Your task to perform on an android device: turn off location Image 0: 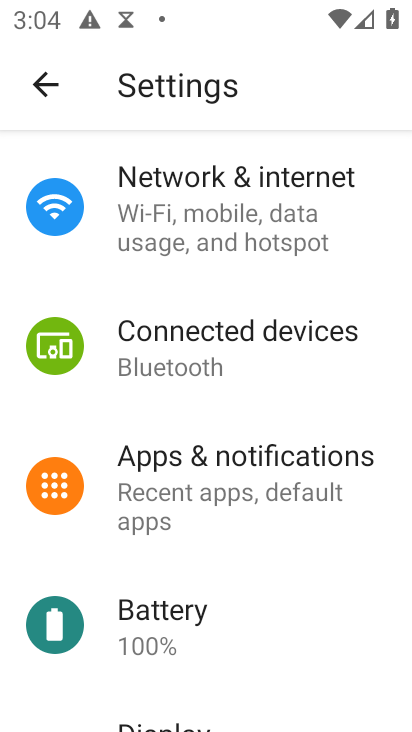
Step 0: press home button
Your task to perform on an android device: turn off location Image 1: 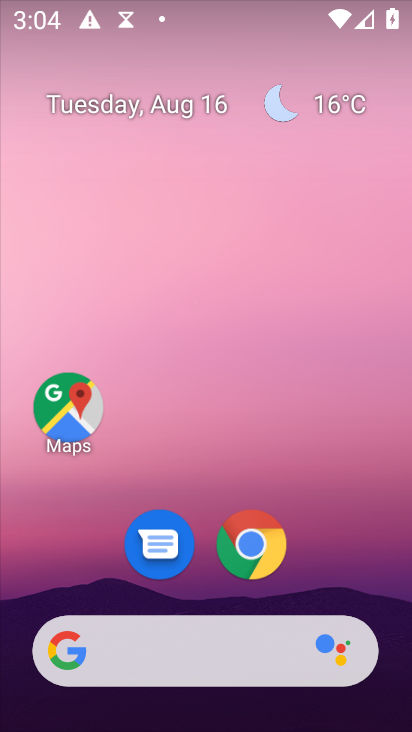
Step 1: drag from (183, 672) to (229, 144)
Your task to perform on an android device: turn off location Image 2: 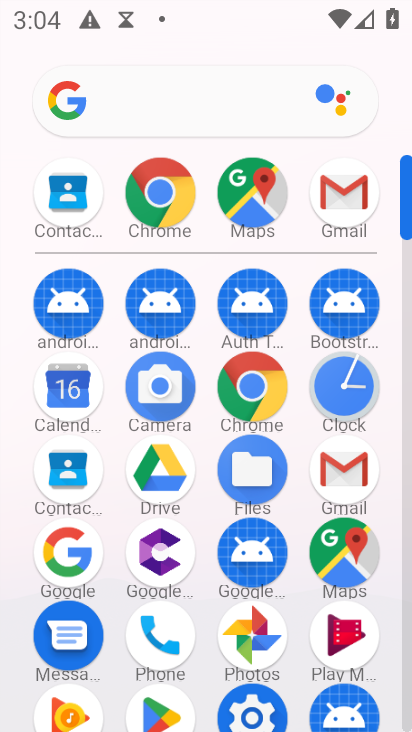
Step 2: drag from (205, 519) to (182, 302)
Your task to perform on an android device: turn off location Image 3: 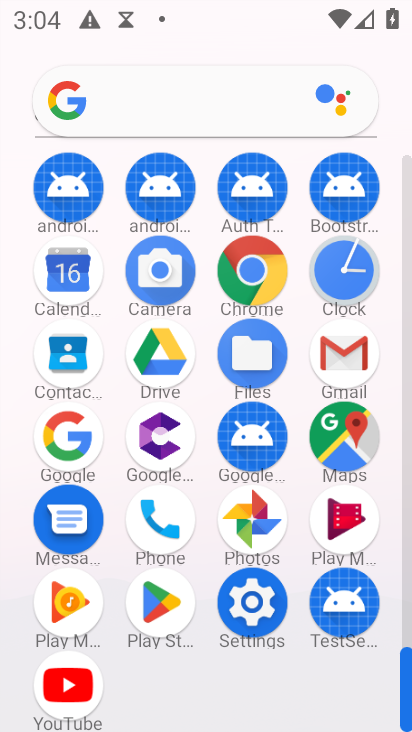
Step 3: click (250, 601)
Your task to perform on an android device: turn off location Image 4: 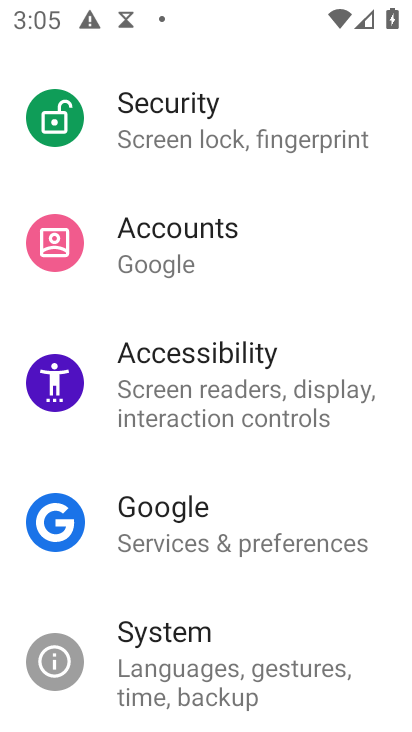
Step 4: drag from (227, 286) to (225, 432)
Your task to perform on an android device: turn off location Image 5: 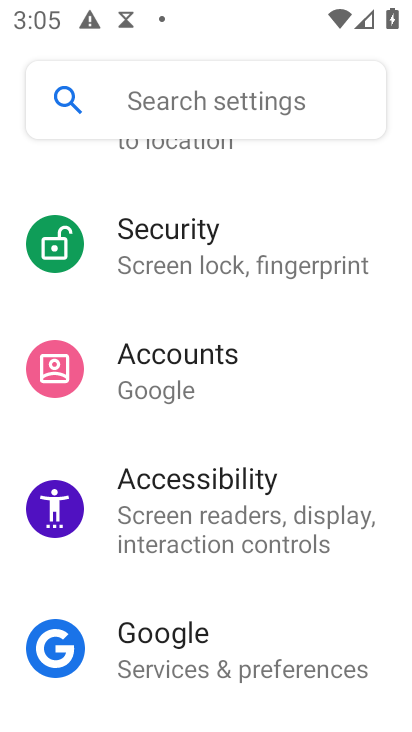
Step 5: drag from (292, 213) to (286, 651)
Your task to perform on an android device: turn off location Image 6: 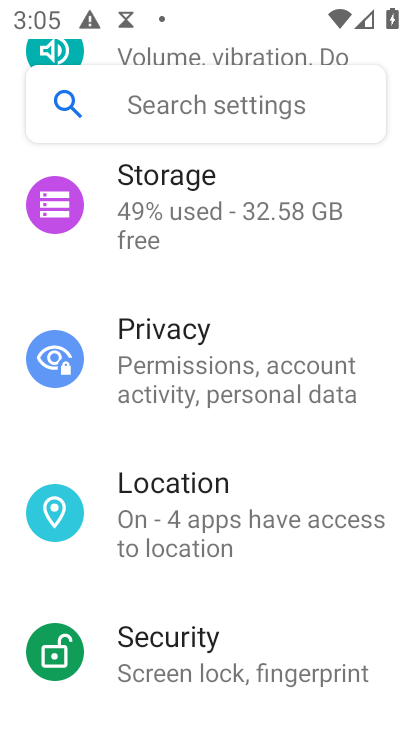
Step 6: click (180, 483)
Your task to perform on an android device: turn off location Image 7: 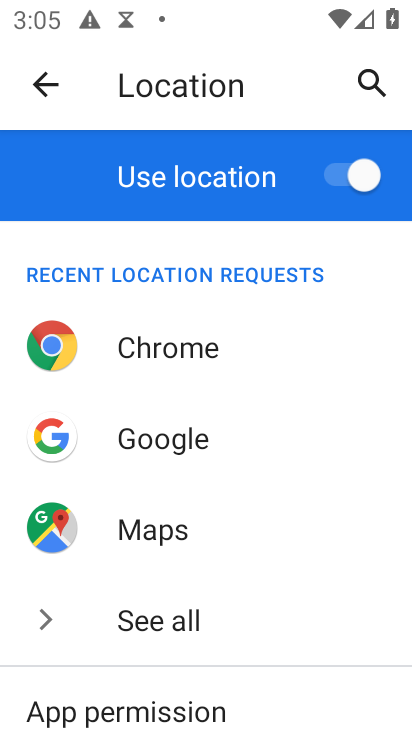
Step 7: click (325, 174)
Your task to perform on an android device: turn off location Image 8: 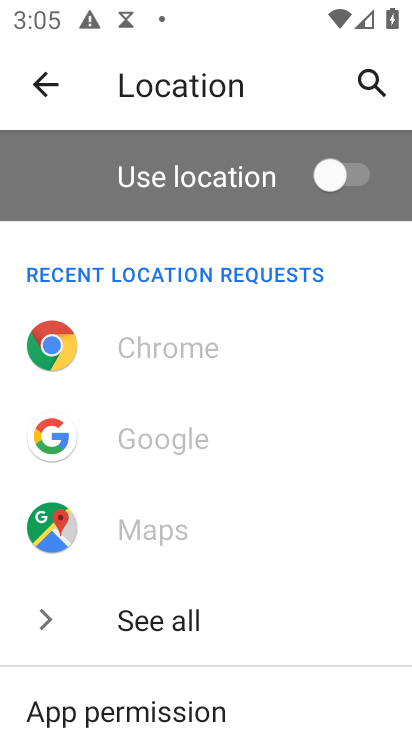
Step 8: task complete